Your task to perform on an android device: toggle sleep mode Image 0: 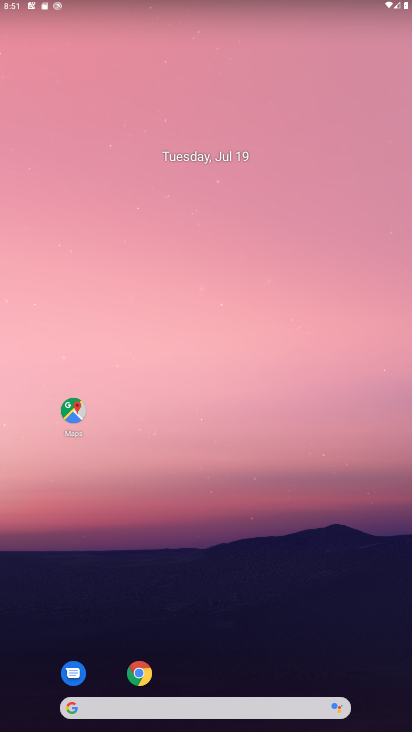
Step 0: drag from (369, 653) to (355, 179)
Your task to perform on an android device: toggle sleep mode Image 1: 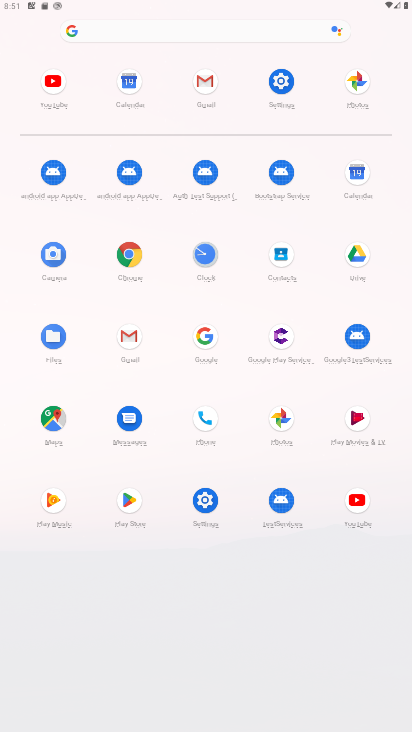
Step 1: click (204, 498)
Your task to perform on an android device: toggle sleep mode Image 2: 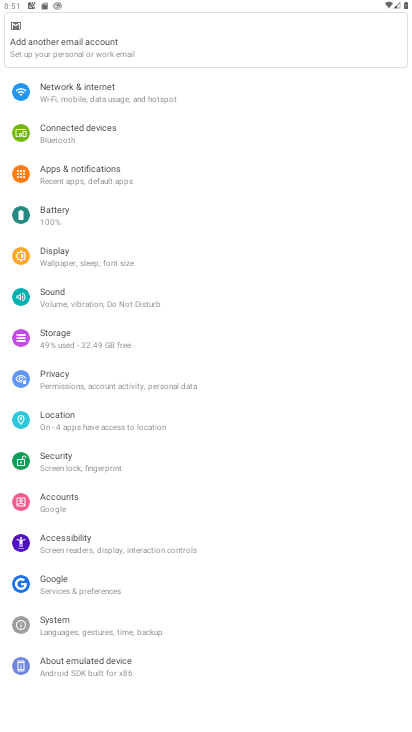
Step 2: click (59, 255)
Your task to perform on an android device: toggle sleep mode Image 3: 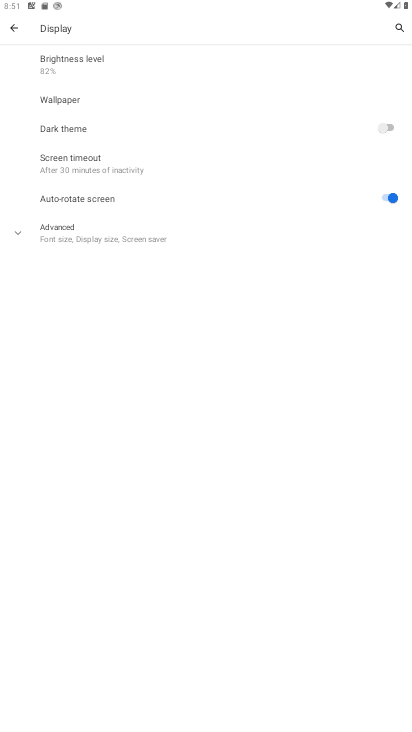
Step 3: click (14, 231)
Your task to perform on an android device: toggle sleep mode Image 4: 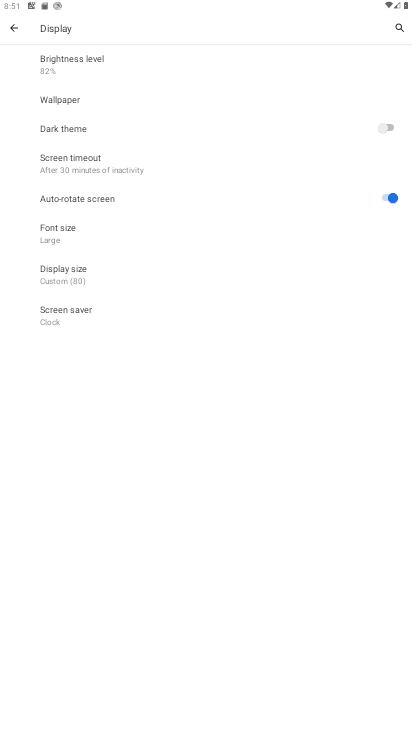
Step 4: task complete